Your task to perform on an android device: add a label to a message in the gmail app Image 0: 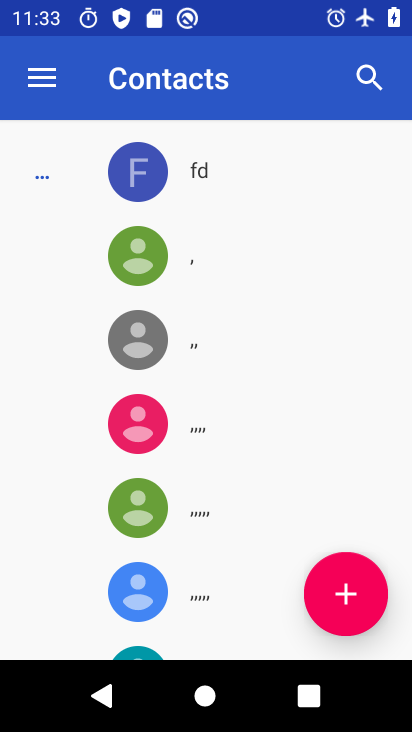
Step 0: press home button
Your task to perform on an android device: add a label to a message in the gmail app Image 1: 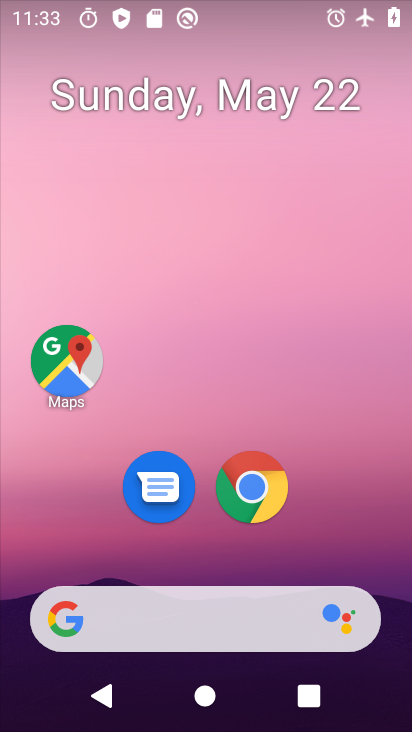
Step 1: drag from (371, 518) to (377, 52)
Your task to perform on an android device: add a label to a message in the gmail app Image 2: 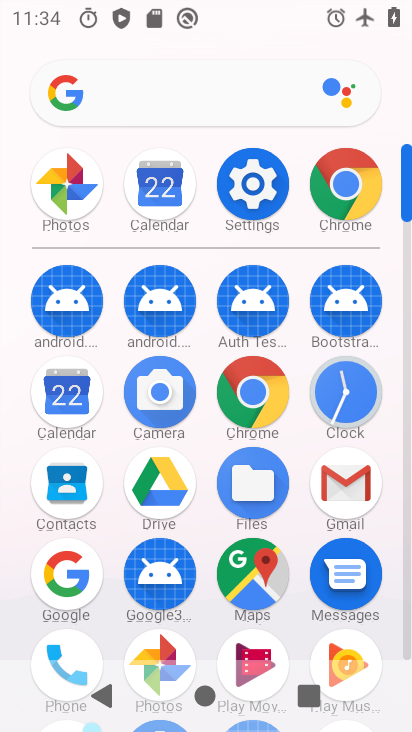
Step 2: click (344, 489)
Your task to perform on an android device: add a label to a message in the gmail app Image 3: 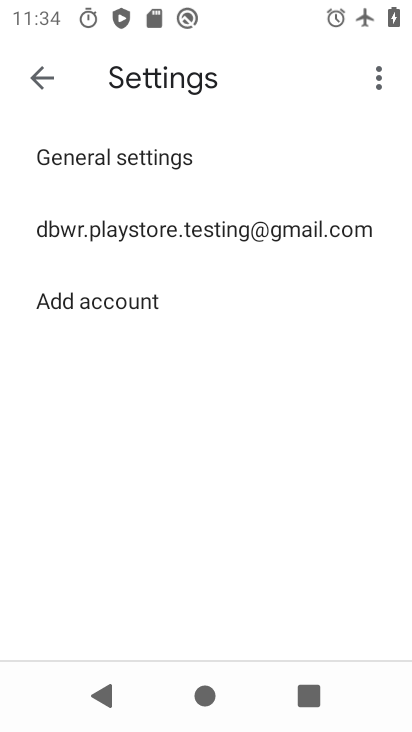
Step 3: click (204, 226)
Your task to perform on an android device: add a label to a message in the gmail app Image 4: 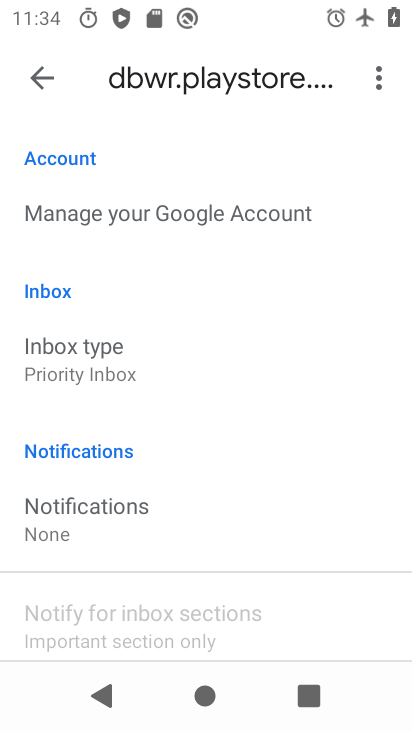
Step 4: click (30, 68)
Your task to perform on an android device: add a label to a message in the gmail app Image 5: 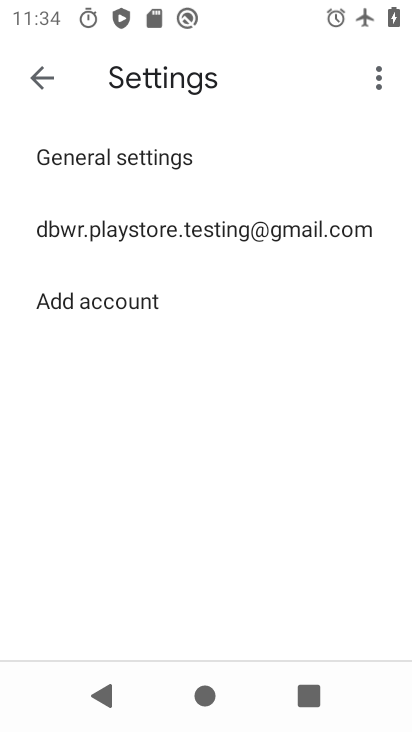
Step 5: click (31, 69)
Your task to perform on an android device: add a label to a message in the gmail app Image 6: 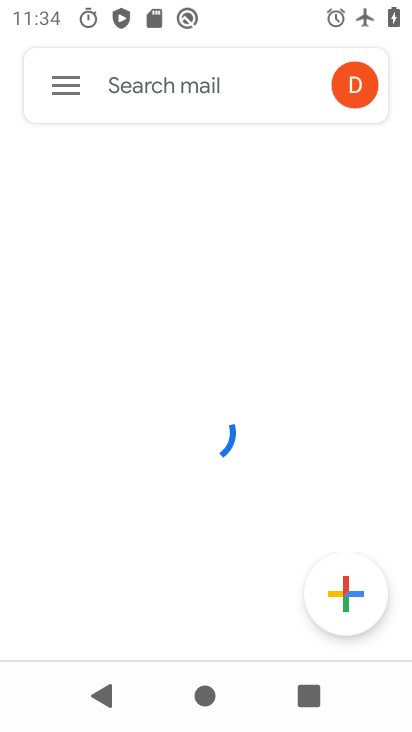
Step 6: click (49, 69)
Your task to perform on an android device: add a label to a message in the gmail app Image 7: 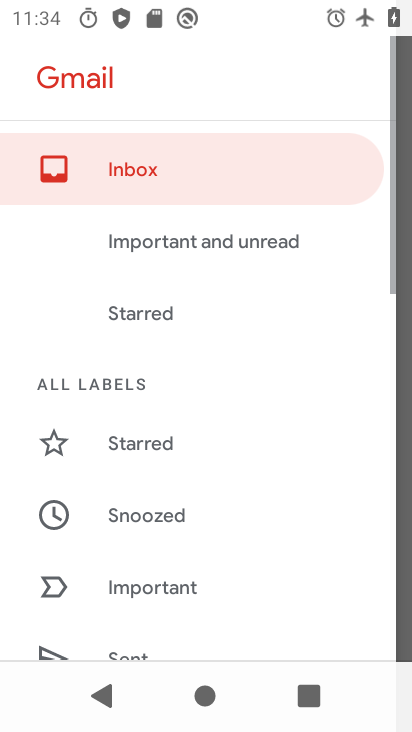
Step 7: drag from (169, 572) to (163, 222)
Your task to perform on an android device: add a label to a message in the gmail app Image 8: 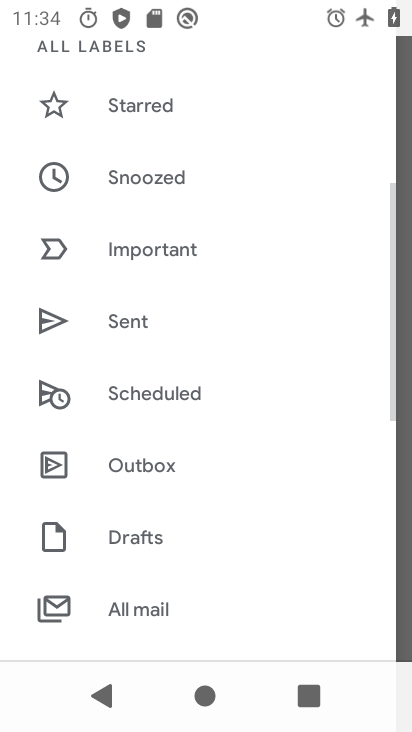
Step 8: drag from (207, 595) to (269, 383)
Your task to perform on an android device: add a label to a message in the gmail app Image 9: 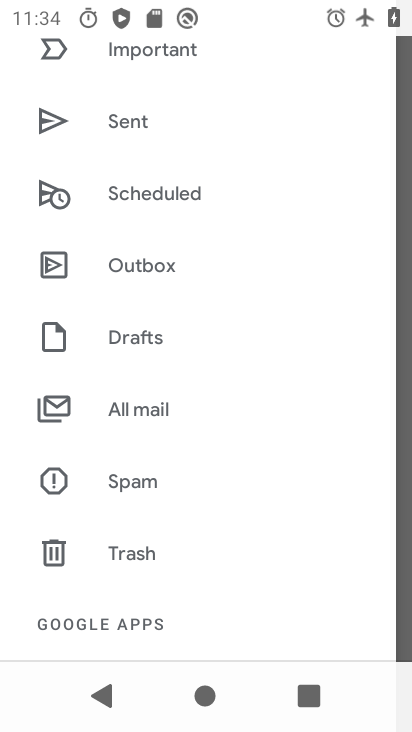
Step 9: click (171, 405)
Your task to perform on an android device: add a label to a message in the gmail app Image 10: 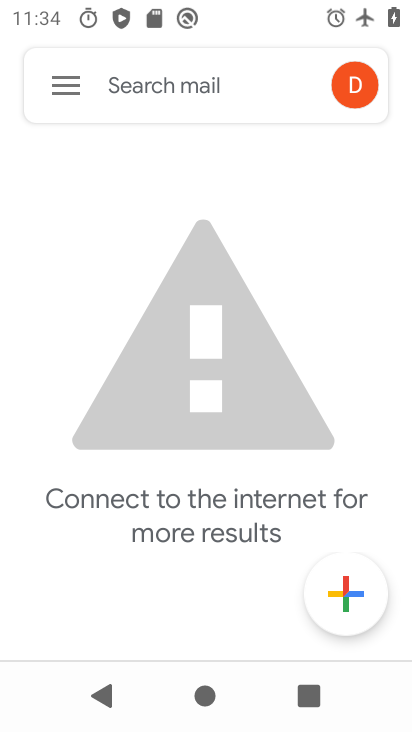
Step 10: task complete